Your task to perform on an android device: turn on airplane mode Image 0: 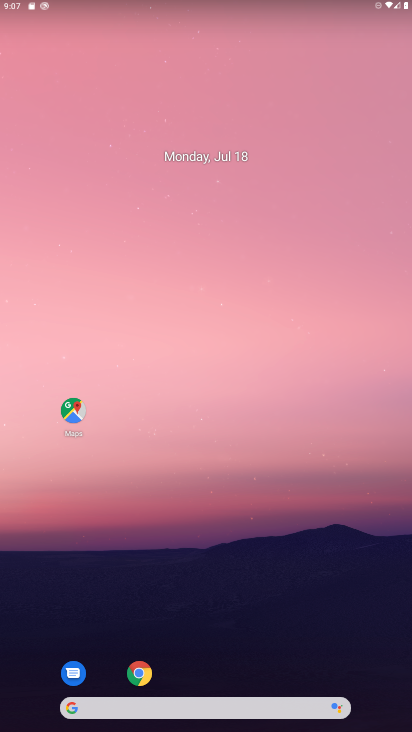
Step 0: press home button
Your task to perform on an android device: turn on airplane mode Image 1: 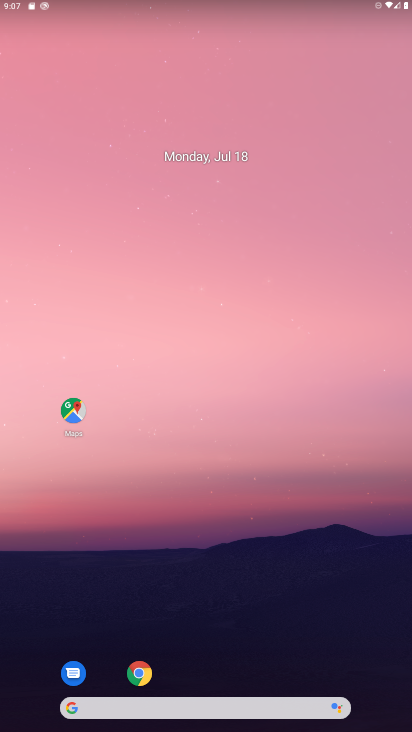
Step 1: drag from (205, 1) to (197, 721)
Your task to perform on an android device: turn on airplane mode Image 2: 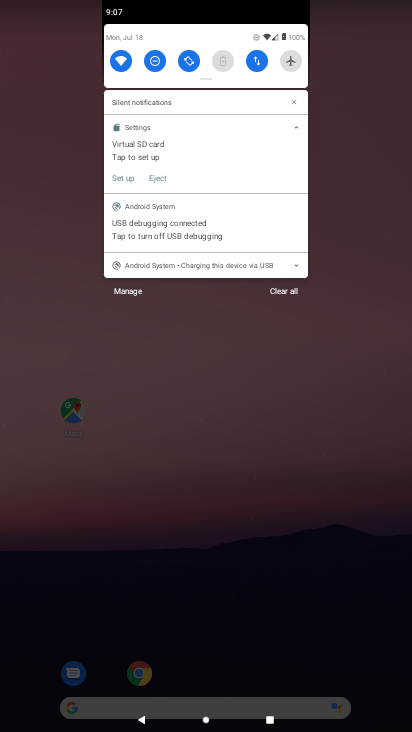
Step 2: click (292, 65)
Your task to perform on an android device: turn on airplane mode Image 3: 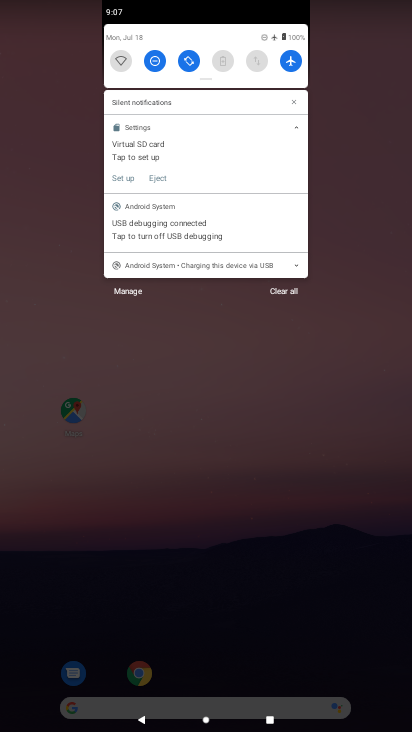
Step 3: task complete